Your task to perform on an android device: find which apps use the phone's location Image 0: 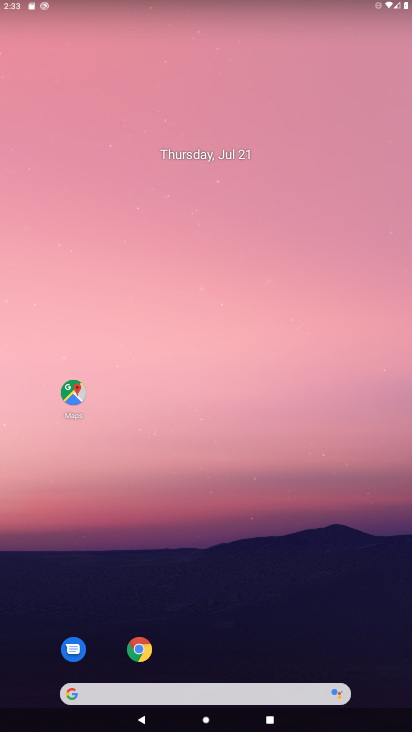
Step 0: drag from (278, 555) to (290, 90)
Your task to perform on an android device: find which apps use the phone's location Image 1: 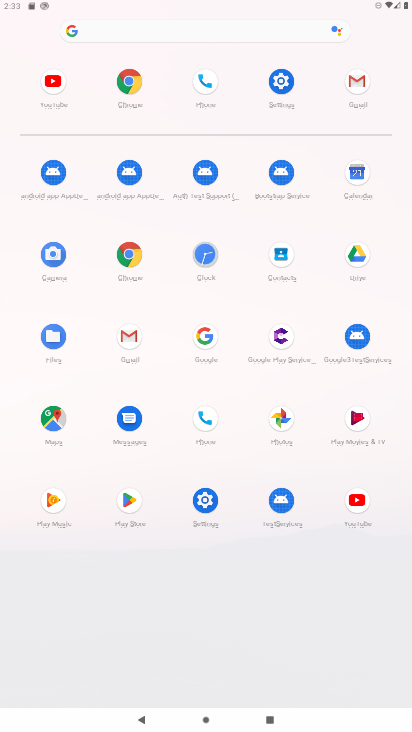
Step 1: click (286, 99)
Your task to perform on an android device: find which apps use the phone's location Image 2: 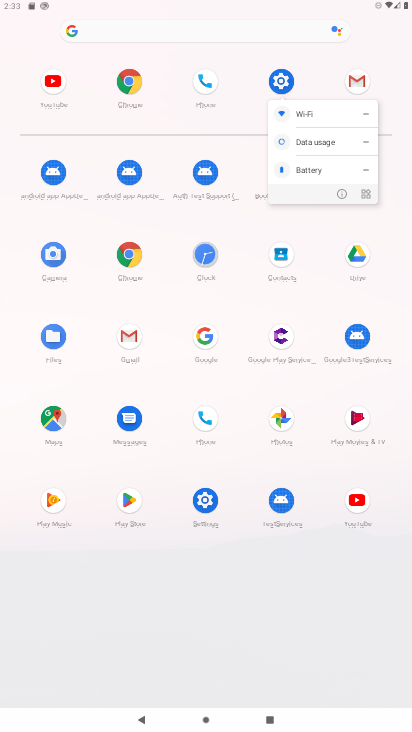
Step 2: click (286, 98)
Your task to perform on an android device: find which apps use the phone's location Image 3: 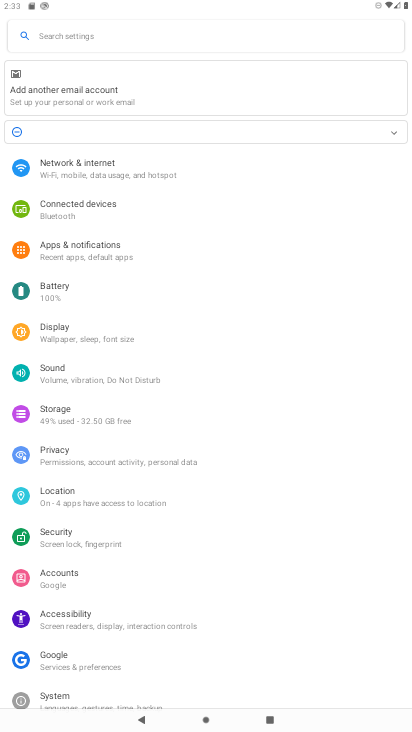
Step 3: click (74, 258)
Your task to perform on an android device: find which apps use the phone's location Image 4: 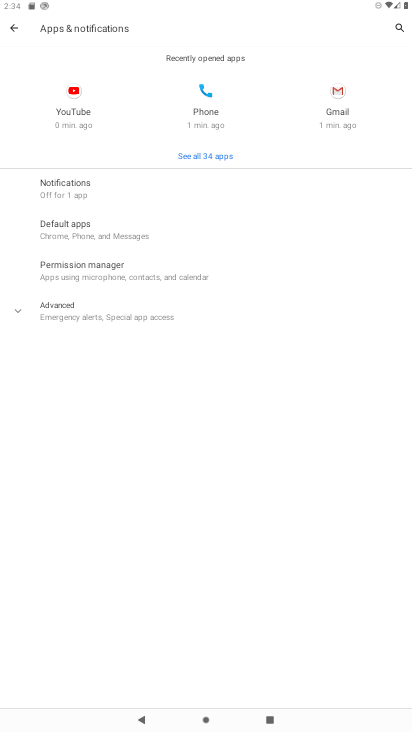
Step 4: click (77, 274)
Your task to perform on an android device: find which apps use the phone's location Image 5: 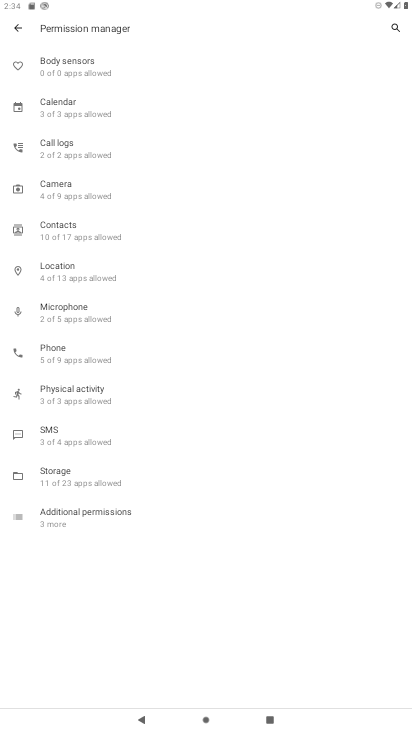
Step 5: task complete